Your task to perform on an android device: all mails in gmail Image 0: 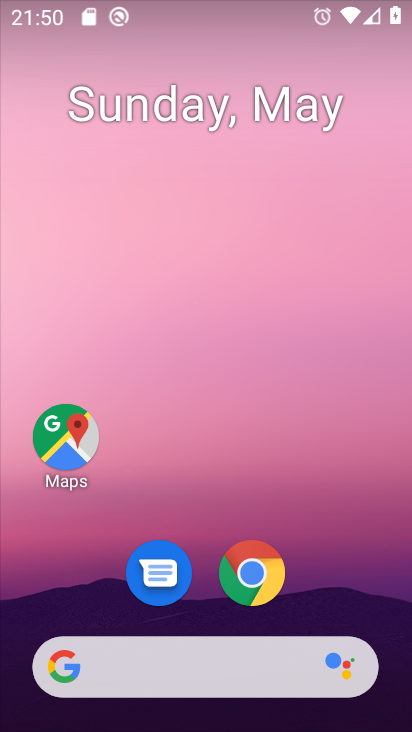
Step 0: drag from (215, 448) to (258, 1)
Your task to perform on an android device: all mails in gmail Image 1: 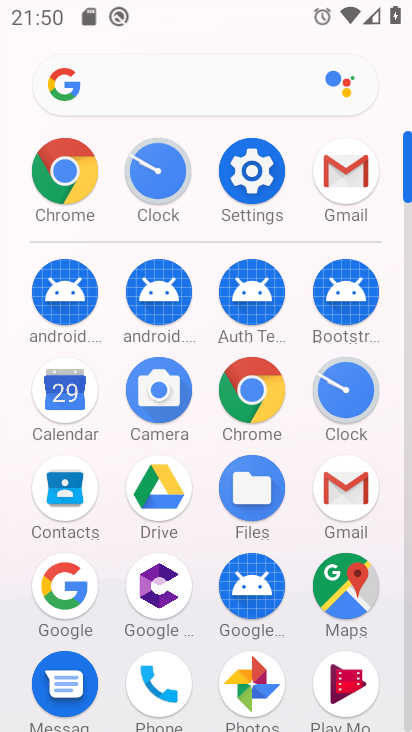
Step 1: click (340, 178)
Your task to perform on an android device: all mails in gmail Image 2: 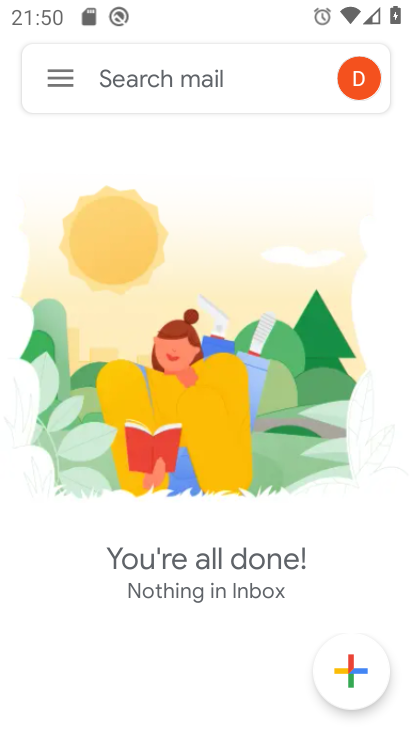
Step 2: click (58, 78)
Your task to perform on an android device: all mails in gmail Image 3: 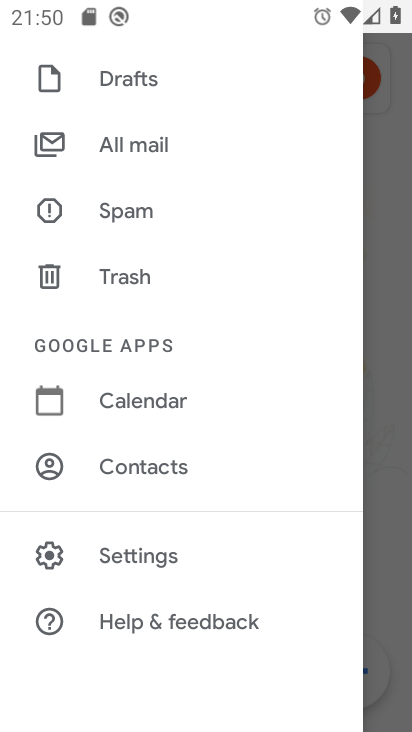
Step 3: click (123, 136)
Your task to perform on an android device: all mails in gmail Image 4: 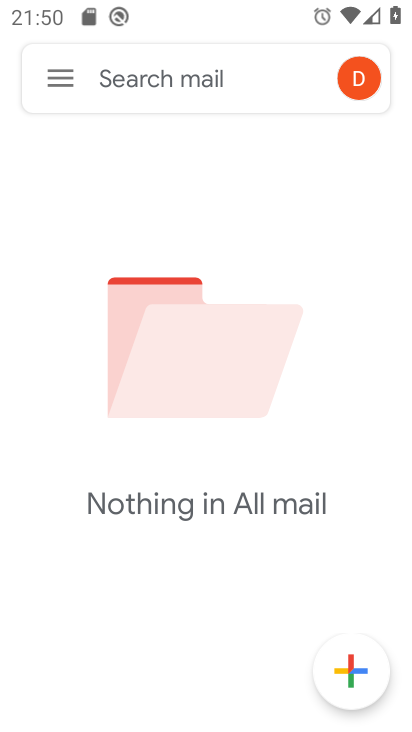
Step 4: task complete